Your task to perform on an android device: Open Yahoo.com Image 0: 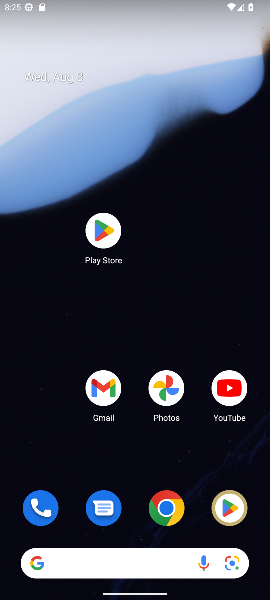
Step 0: click (172, 525)
Your task to perform on an android device: Open Yahoo.com Image 1: 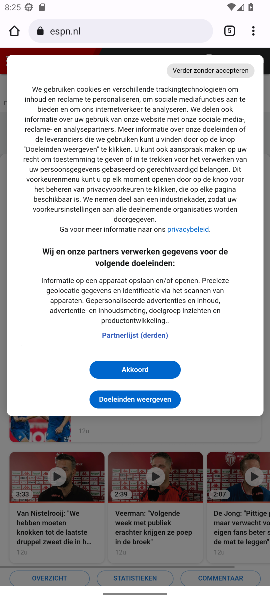
Step 1: click (214, 26)
Your task to perform on an android device: Open Yahoo.com Image 2: 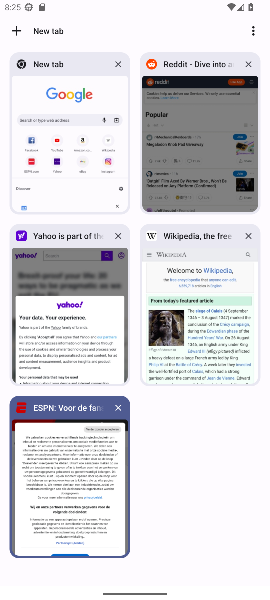
Step 2: click (18, 22)
Your task to perform on an android device: Open Yahoo.com Image 3: 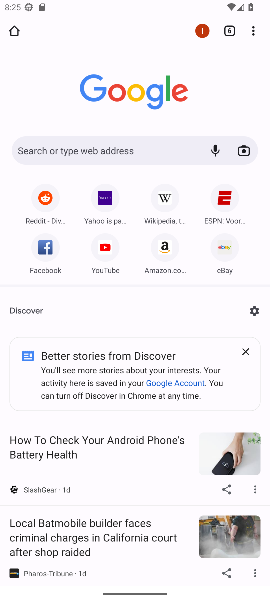
Step 3: click (86, 189)
Your task to perform on an android device: Open Yahoo.com Image 4: 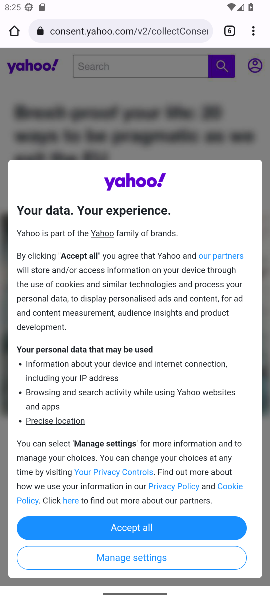
Step 4: task complete